Your task to perform on an android device: empty trash in google photos Image 0: 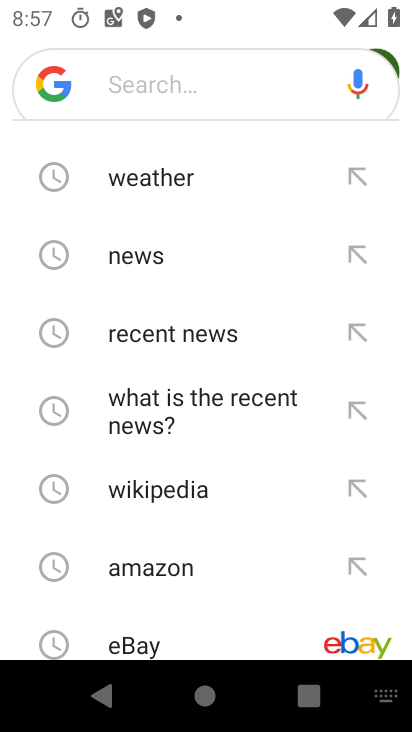
Step 0: press home button
Your task to perform on an android device: empty trash in google photos Image 1: 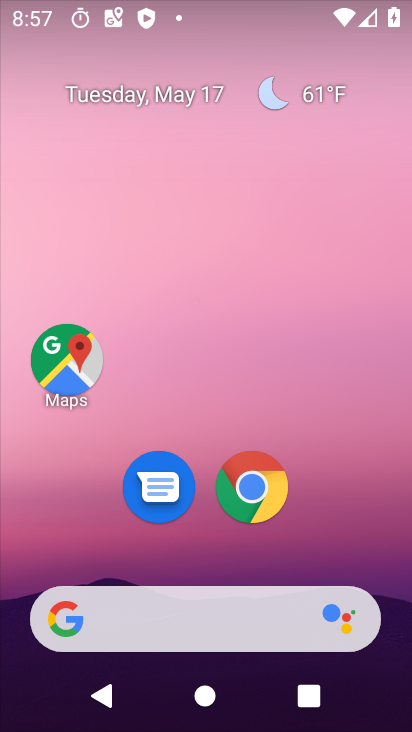
Step 1: drag from (214, 606) to (320, 45)
Your task to perform on an android device: empty trash in google photos Image 2: 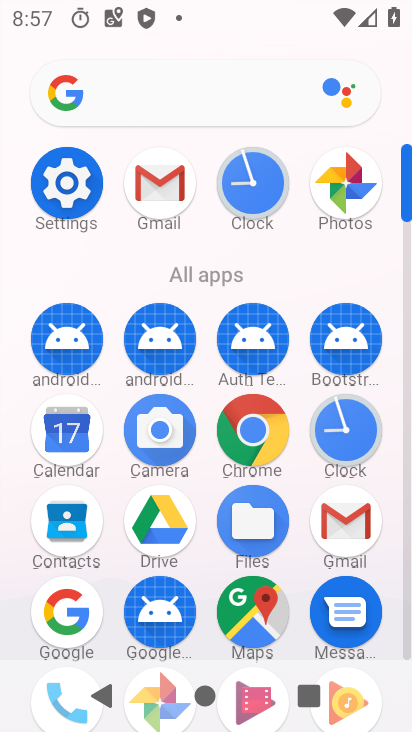
Step 2: click (329, 159)
Your task to perform on an android device: empty trash in google photos Image 3: 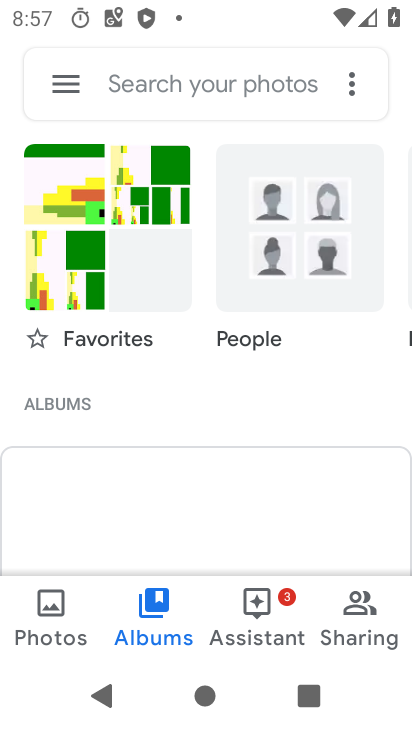
Step 3: click (62, 80)
Your task to perform on an android device: empty trash in google photos Image 4: 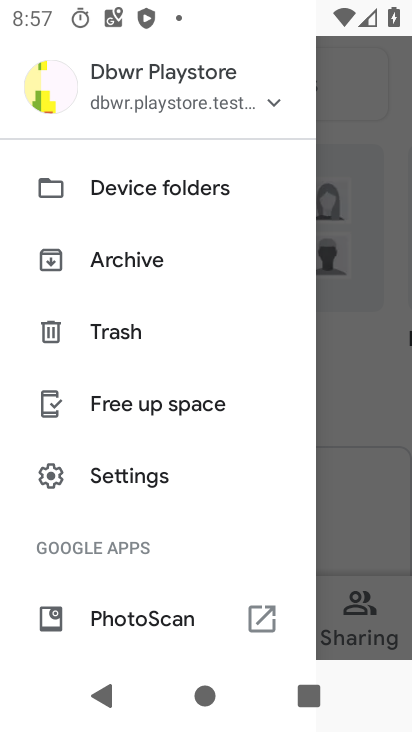
Step 4: click (116, 340)
Your task to perform on an android device: empty trash in google photos Image 5: 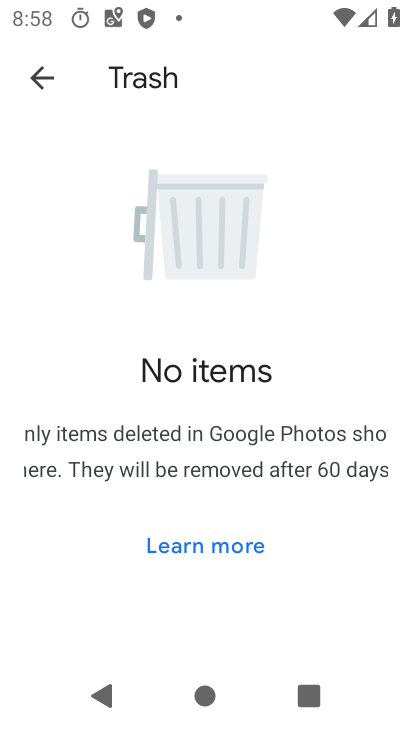
Step 5: task complete